Your task to perform on an android device: Open my contact list Image 0: 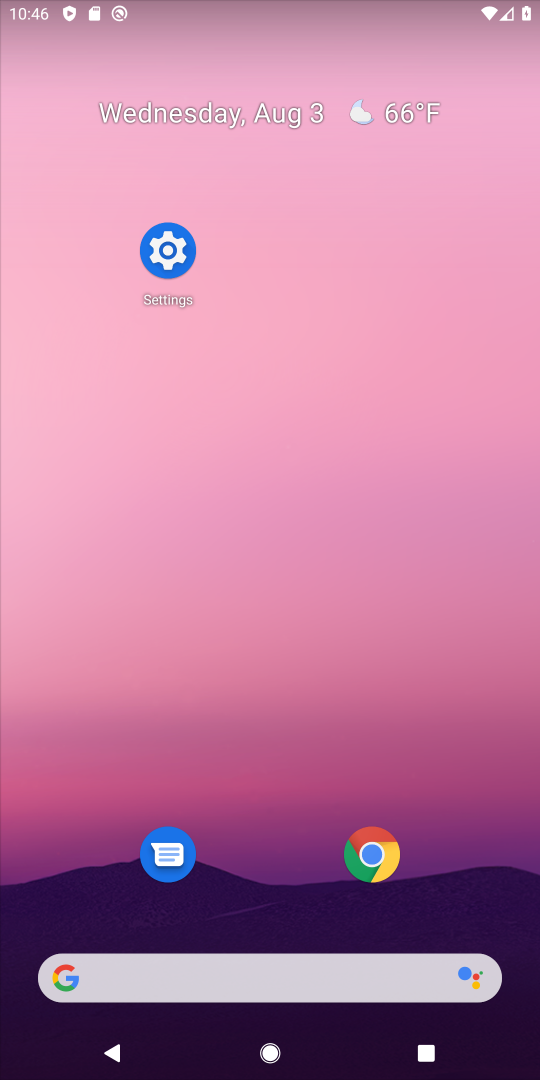
Step 0: drag from (279, 859) to (329, 248)
Your task to perform on an android device: Open my contact list Image 1: 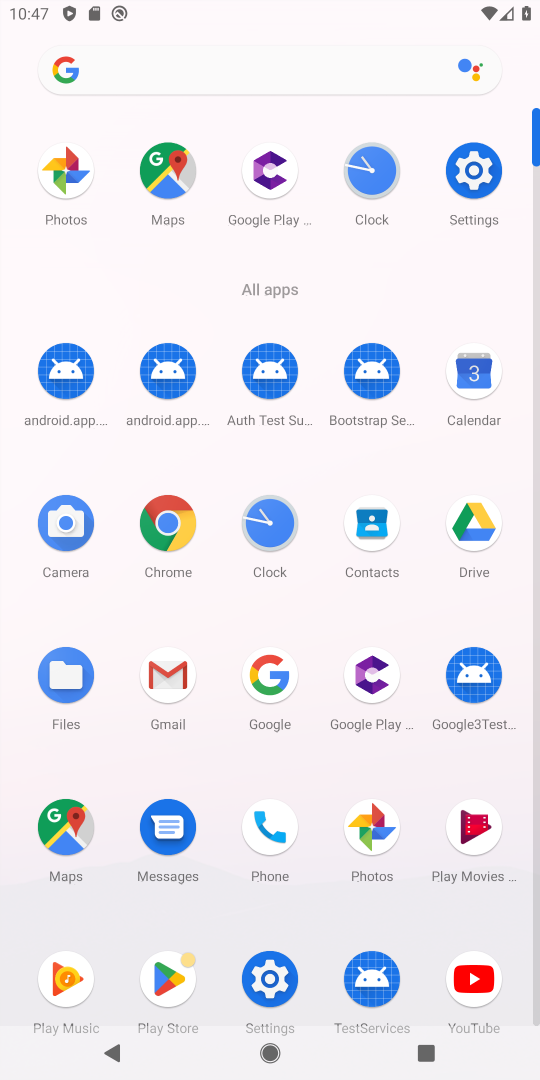
Step 1: click (362, 527)
Your task to perform on an android device: Open my contact list Image 2: 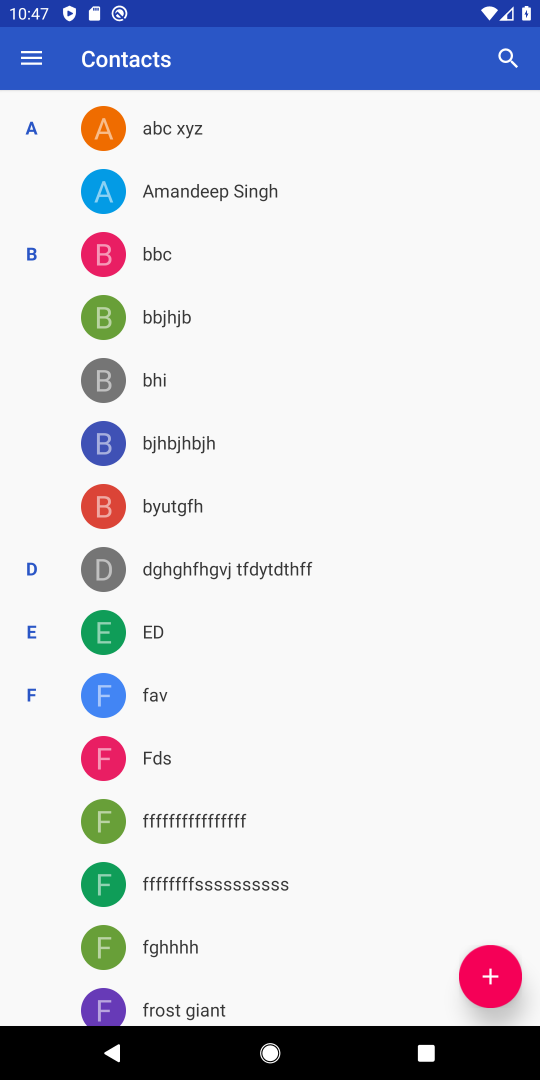
Step 2: task complete